Your task to perform on an android device: Is it going to rain tomorrow? Image 0: 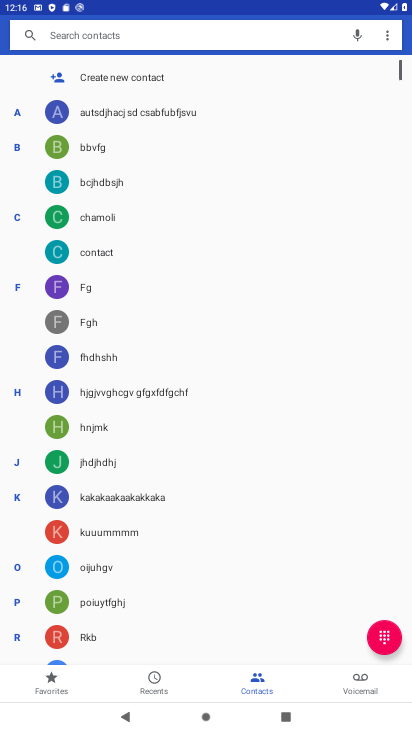
Step 0: press home button
Your task to perform on an android device: Is it going to rain tomorrow? Image 1: 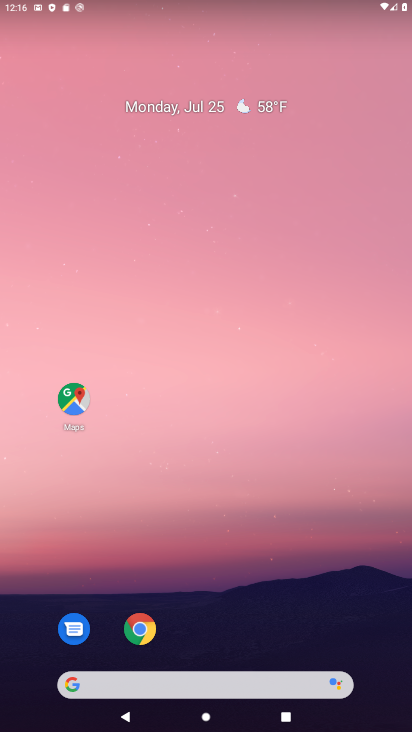
Step 1: drag from (206, 663) to (146, 129)
Your task to perform on an android device: Is it going to rain tomorrow? Image 2: 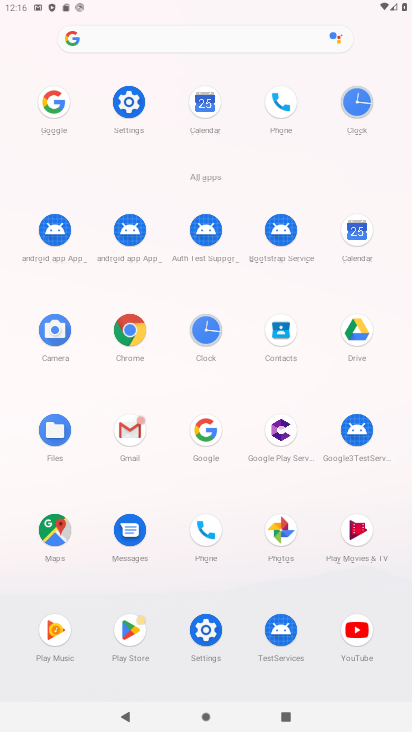
Step 2: click (187, 438)
Your task to perform on an android device: Is it going to rain tomorrow? Image 3: 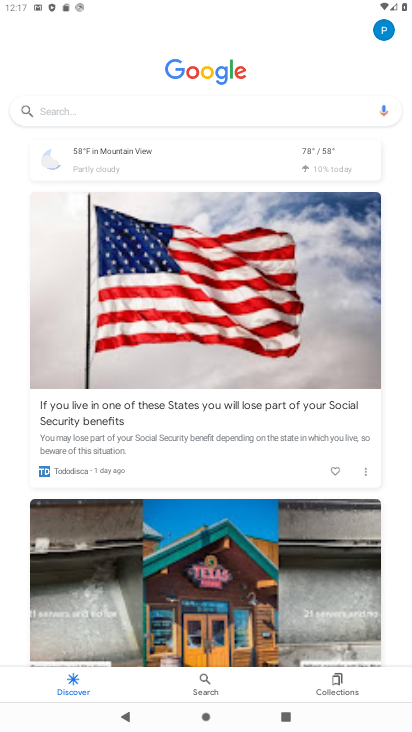
Step 3: press back button
Your task to perform on an android device: Is it going to rain tomorrow? Image 4: 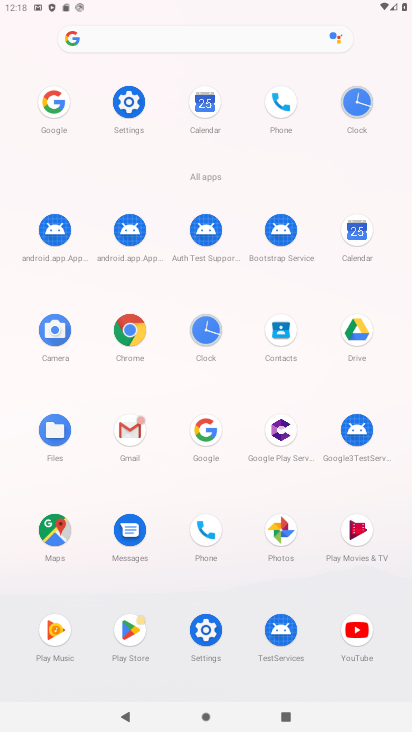
Step 4: click (205, 442)
Your task to perform on an android device: Is it going to rain tomorrow? Image 5: 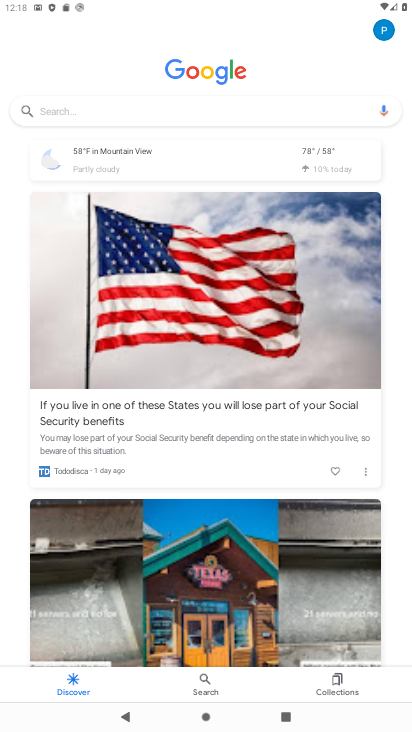
Step 5: click (146, 110)
Your task to perform on an android device: Is it going to rain tomorrow? Image 6: 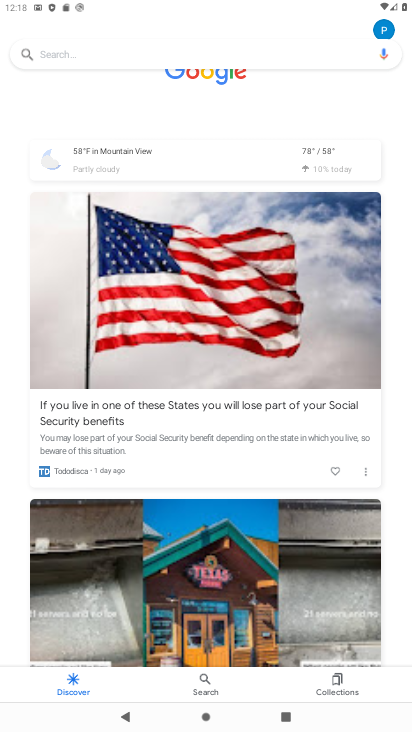
Step 6: click (160, 153)
Your task to perform on an android device: Is it going to rain tomorrow? Image 7: 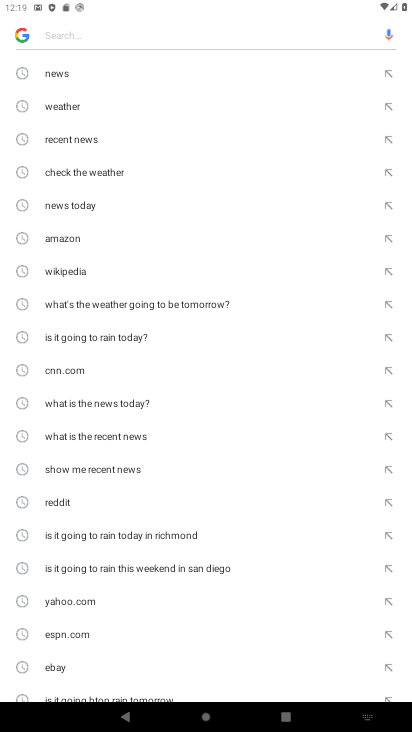
Step 7: click (87, 93)
Your task to perform on an android device: Is it going to rain tomorrow? Image 8: 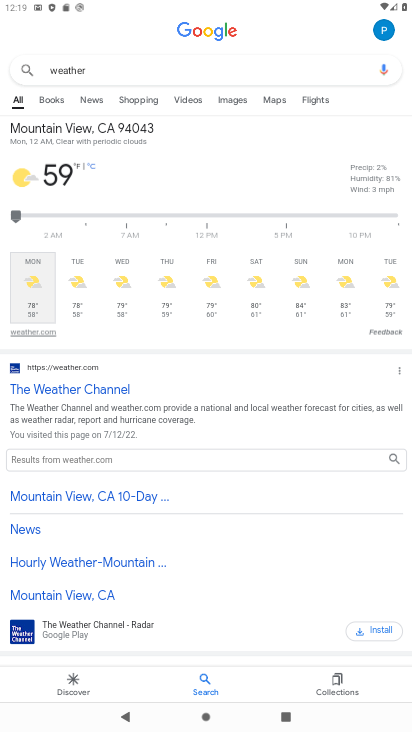
Step 8: click (76, 266)
Your task to perform on an android device: Is it going to rain tomorrow? Image 9: 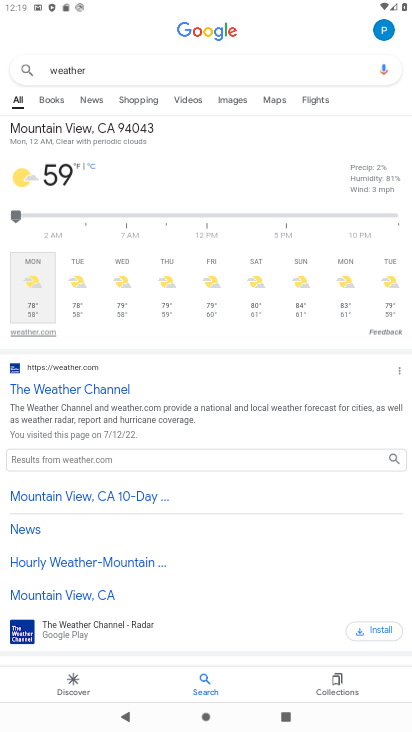
Step 9: click (76, 266)
Your task to perform on an android device: Is it going to rain tomorrow? Image 10: 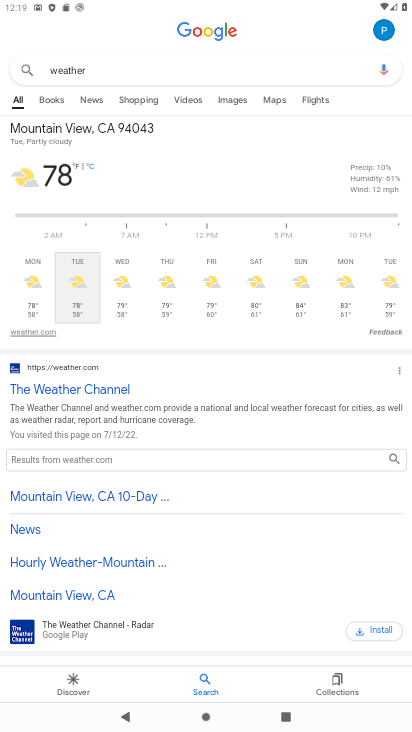
Step 10: task complete